Your task to perform on an android device: toggle airplane mode Image 0: 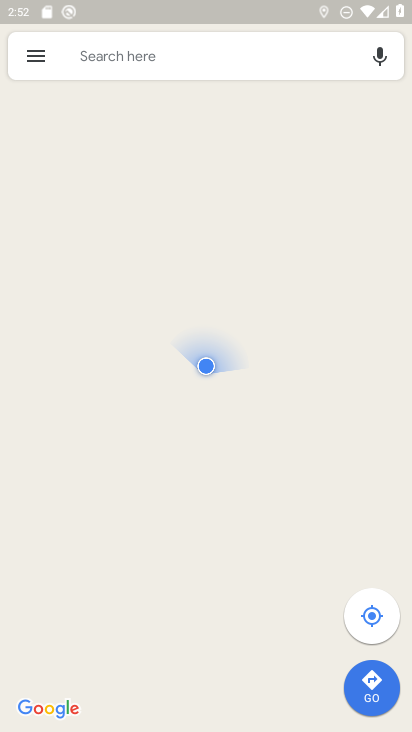
Step 0: press home button
Your task to perform on an android device: toggle airplane mode Image 1: 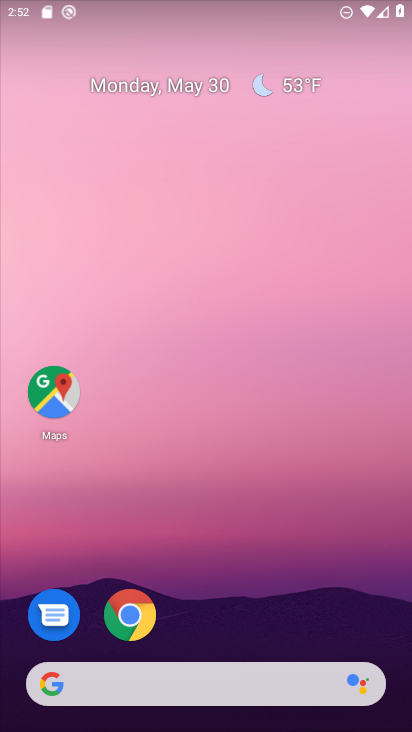
Step 1: drag from (239, 663) to (348, 104)
Your task to perform on an android device: toggle airplane mode Image 2: 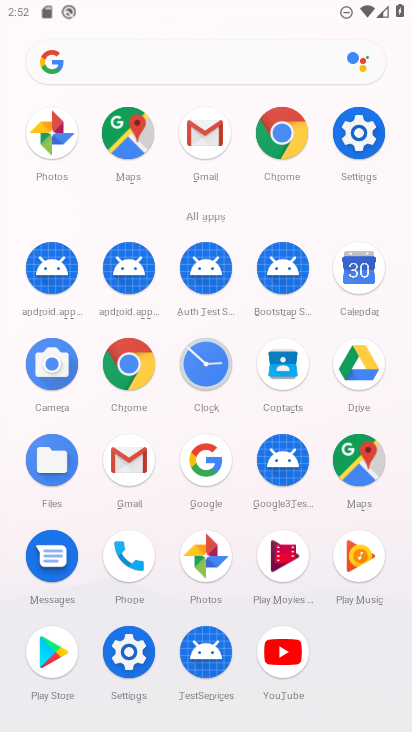
Step 2: click (134, 656)
Your task to perform on an android device: toggle airplane mode Image 3: 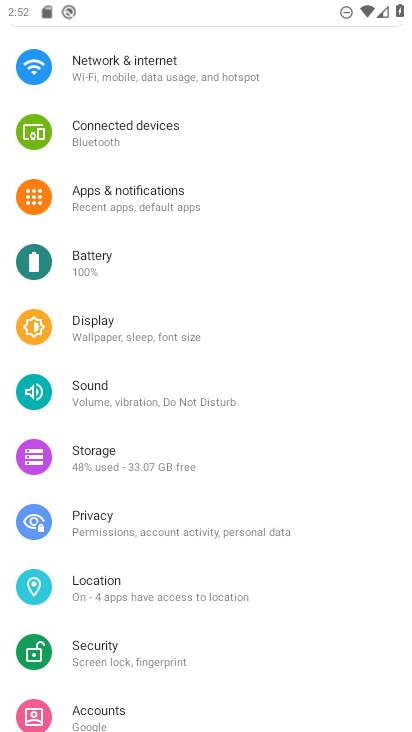
Step 3: drag from (224, 144) to (201, 403)
Your task to perform on an android device: toggle airplane mode Image 4: 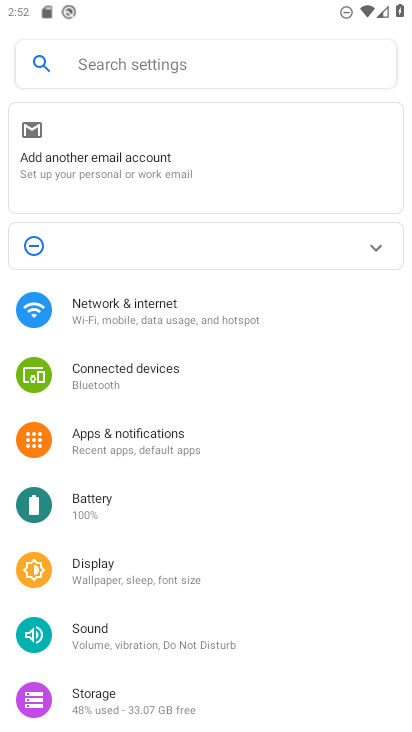
Step 4: click (233, 325)
Your task to perform on an android device: toggle airplane mode Image 5: 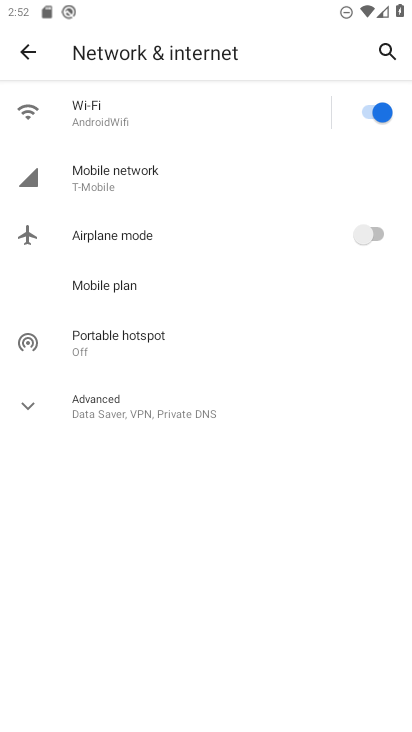
Step 5: click (387, 232)
Your task to perform on an android device: toggle airplane mode Image 6: 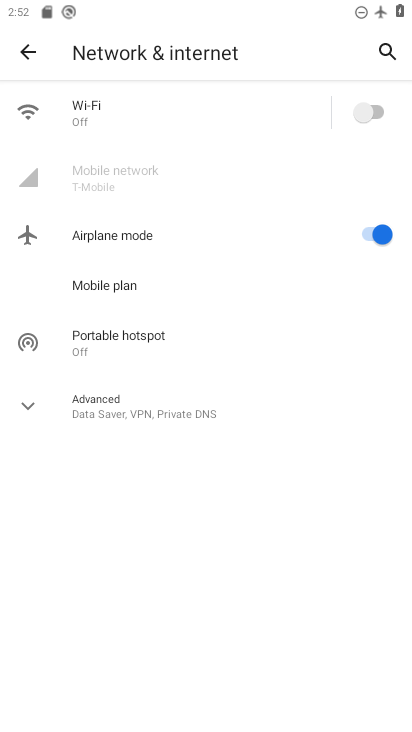
Step 6: task complete